Your task to perform on an android device: Open Reddit.com Image 0: 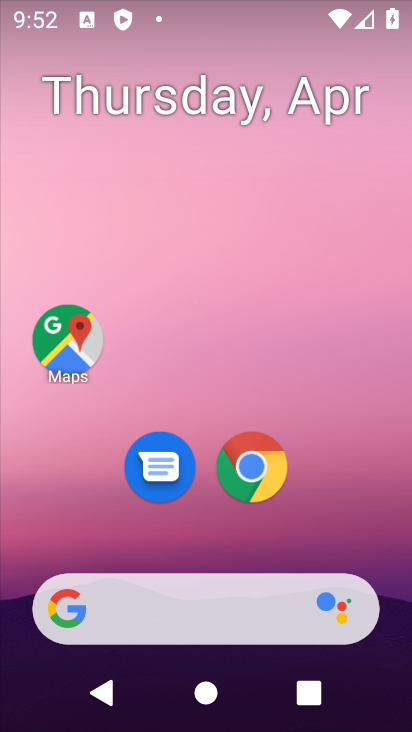
Step 0: click (226, 608)
Your task to perform on an android device: Open Reddit.com Image 1: 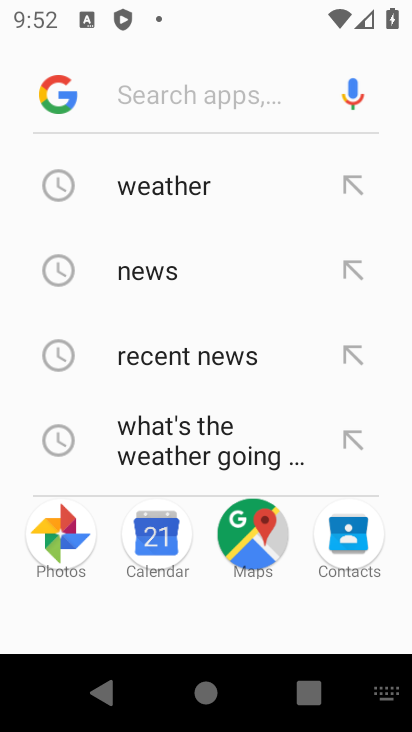
Step 1: type "Reddit.com"
Your task to perform on an android device: Open Reddit.com Image 2: 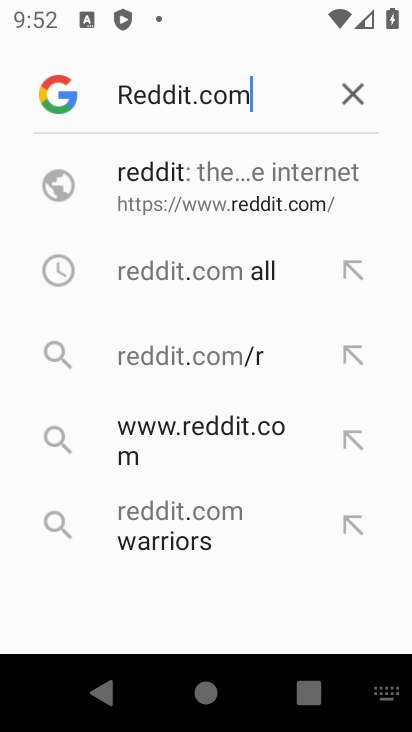
Step 2: click (270, 197)
Your task to perform on an android device: Open Reddit.com Image 3: 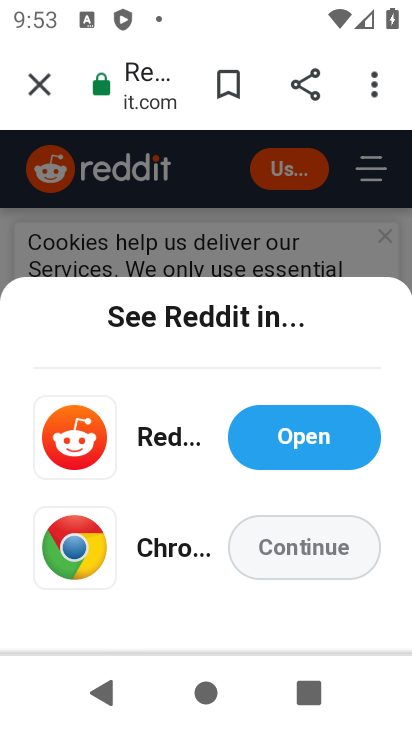
Step 3: task complete